Your task to perform on an android device: find photos in the google photos app Image 0: 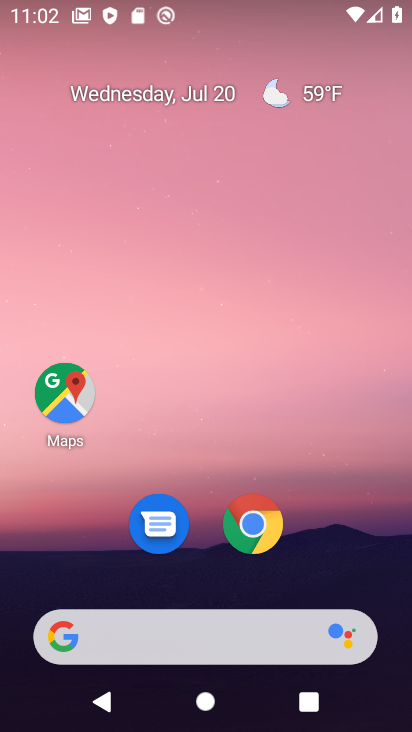
Step 0: drag from (179, 621) to (309, 86)
Your task to perform on an android device: find photos in the google photos app Image 1: 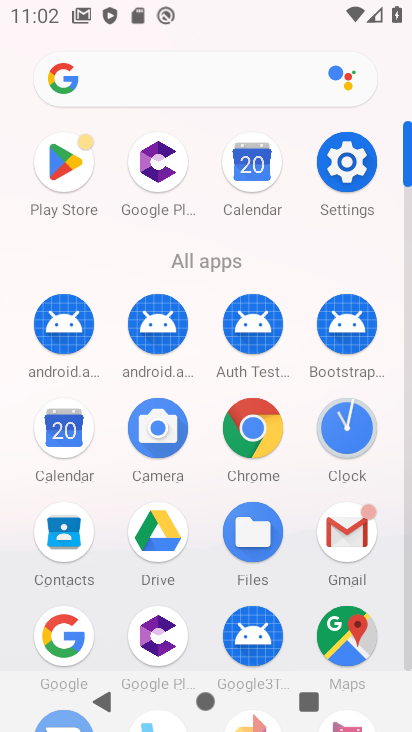
Step 1: drag from (185, 598) to (255, 187)
Your task to perform on an android device: find photos in the google photos app Image 2: 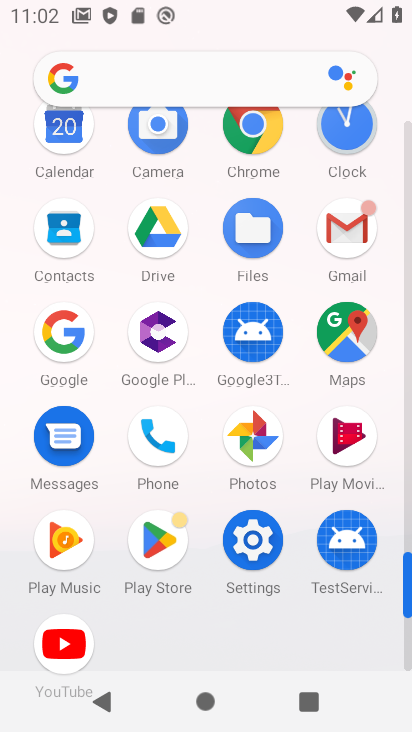
Step 2: click (255, 442)
Your task to perform on an android device: find photos in the google photos app Image 3: 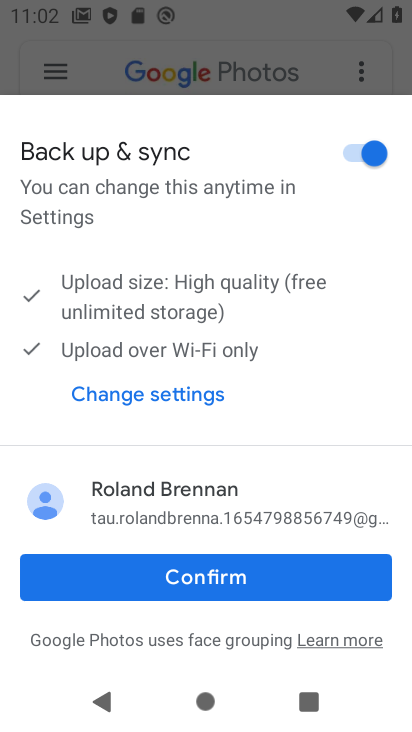
Step 3: click (199, 577)
Your task to perform on an android device: find photos in the google photos app Image 4: 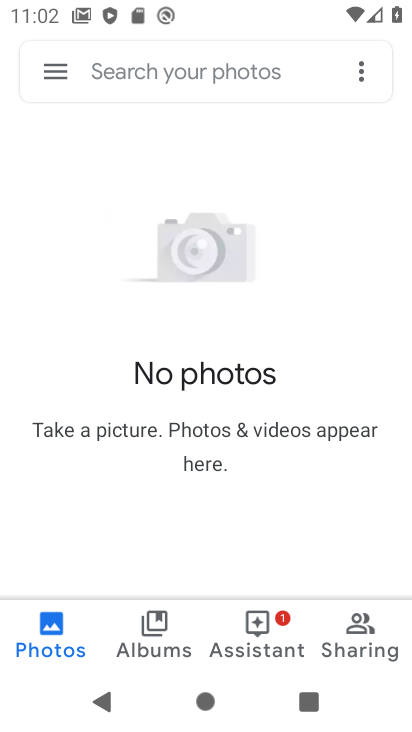
Step 4: task complete